Your task to perform on an android device: turn on location history Image 0: 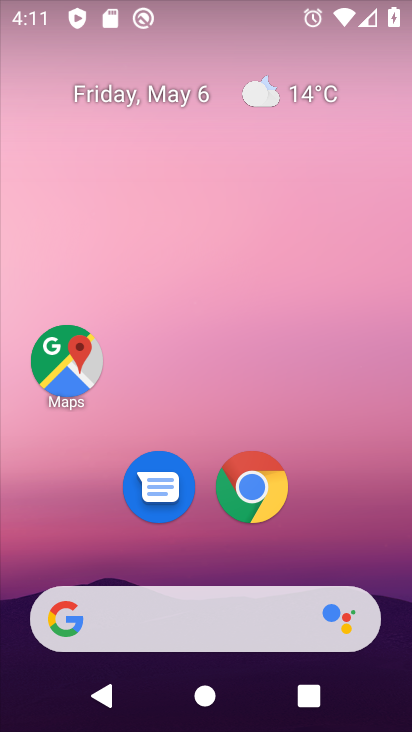
Step 0: drag from (228, 583) to (186, 16)
Your task to perform on an android device: turn on location history Image 1: 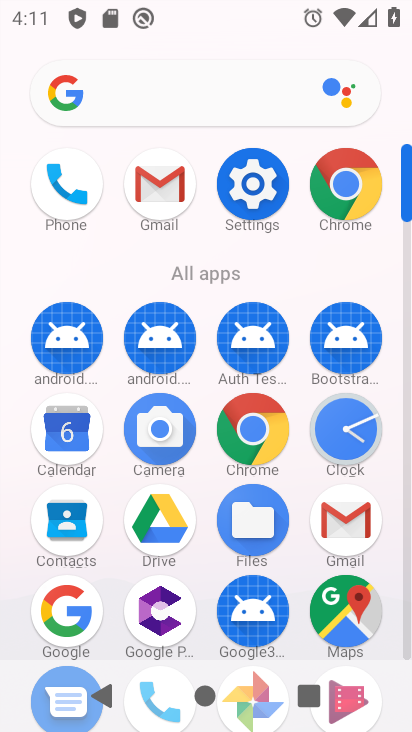
Step 1: click (231, 180)
Your task to perform on an android device: turn on location history Image 2: 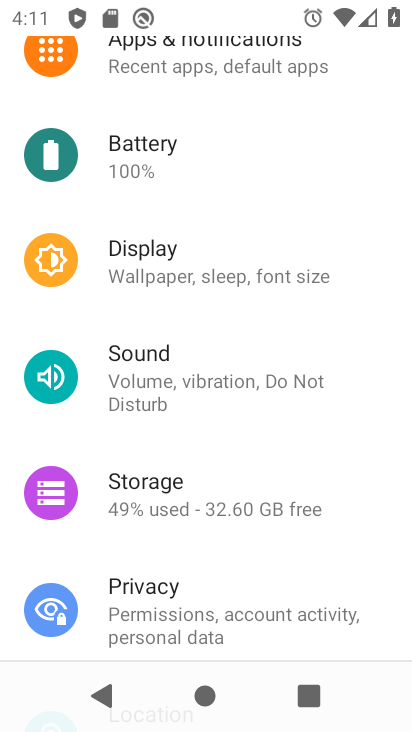
Step 2: drag from (222, 638) to (187, 0)
Your task to perform on an android device: turn on location history Image 3: 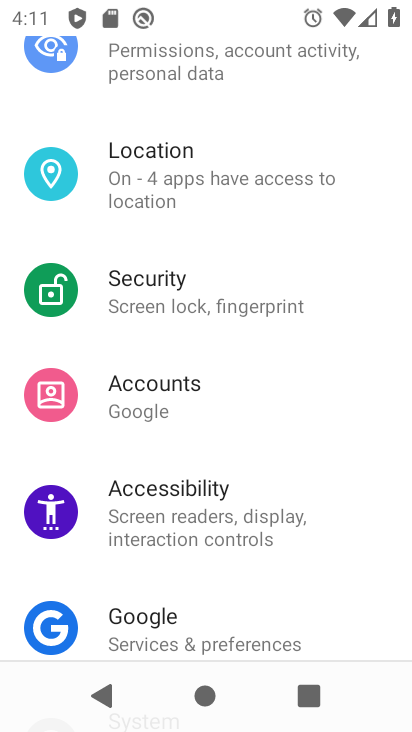
Step 3: click (180, 170)
Your task to perform on an android device: turn on location history Image 4: 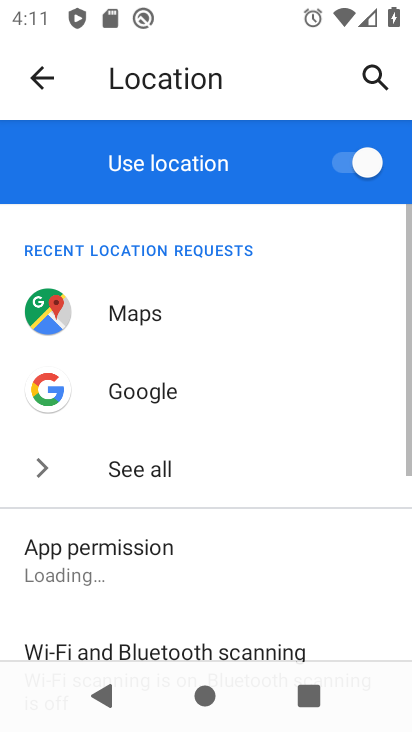
Step 4: drag from (236, 574) to (163, 1)
Your task to perform on an android device: turn on location history Image 5: 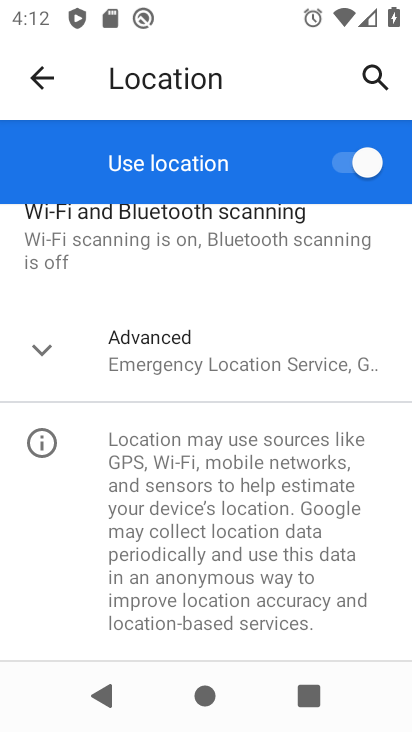
Step 5: click (133, 285)
Your task to perform on an android device: turn on location history Image 6: 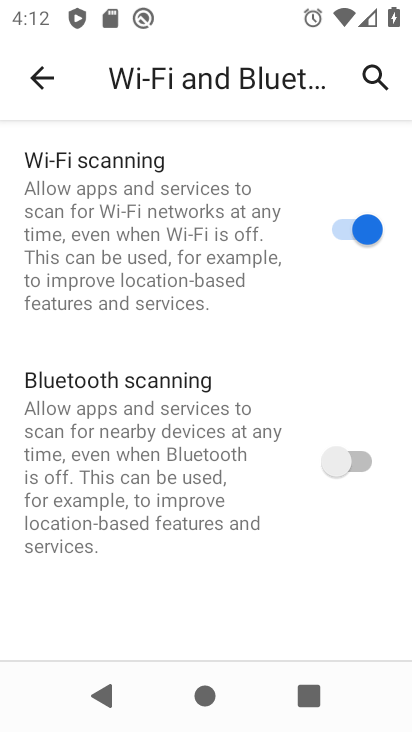
Step 6: click (47, 90)
Your task to perform on an android device: turn on location history Image 7: 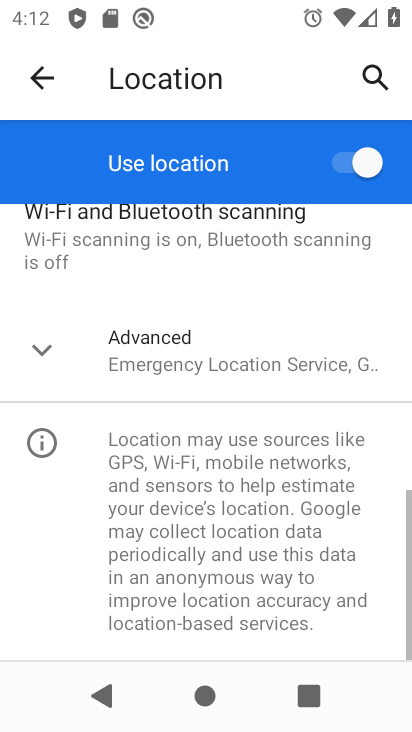
Step 7: click (138, 378)
Your task to perform on an android device: turn on location history Image 8: 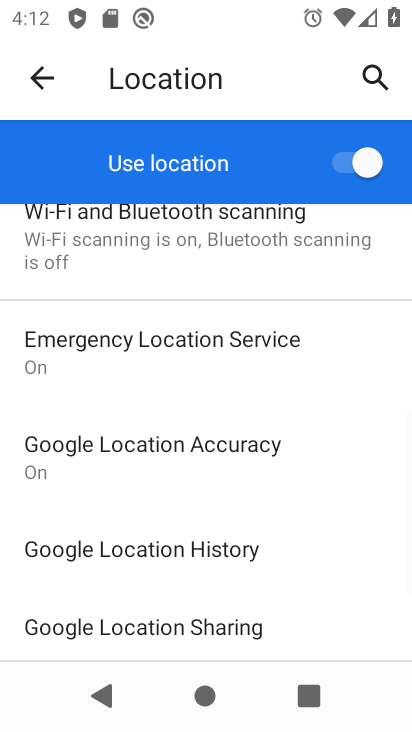
Step 8: click (149, 558)
Your task to perform on an android device: turn on location history Image 9: 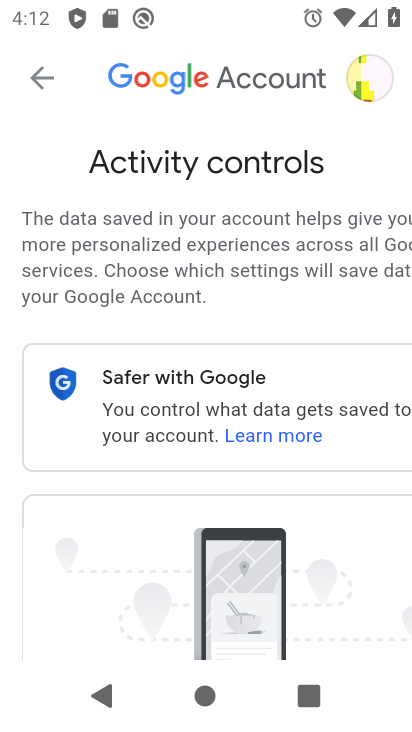
Step 9: task complete